Your task to perform on an android device: Search for seafood restaurants on Google Maps Image 0: 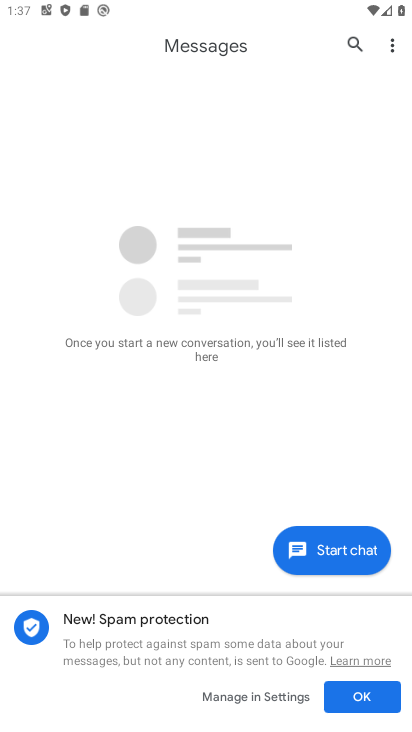
Step 0: press home button
Your task to perform on an android device: Search for seafood restaurants on Google Maps Image 1: 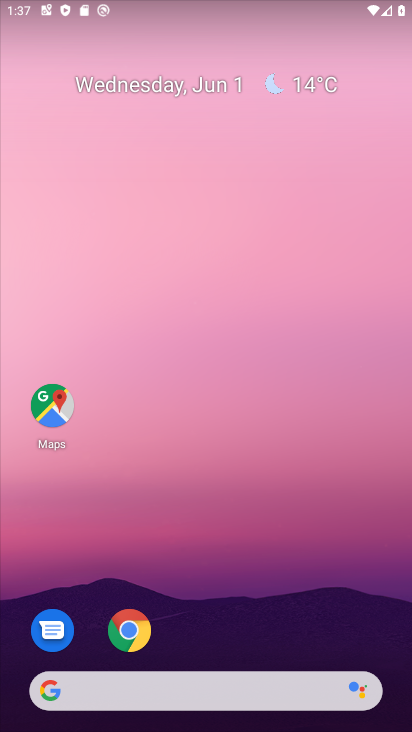
Step 1: click (52, 399)
Your task to perform on an android device: Search for seafood restaurants on Google Maps Image 2: 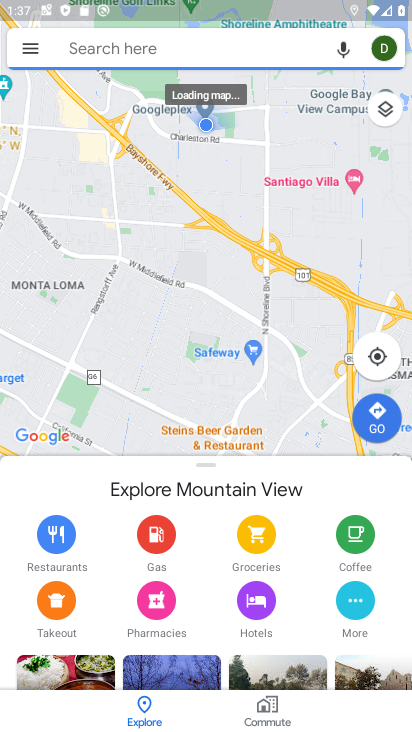
Step 2: click (126, 40)
Your task to perform on an android device: Search for seafood restaurants on Google Maps Image 3: 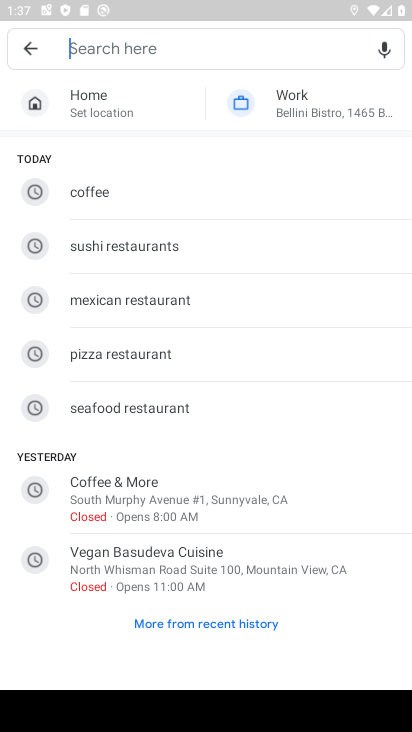
Step 3: click (126, 401)
Your task to perform on an android device: Search for seafood restaurants on Google Maps Image 4: 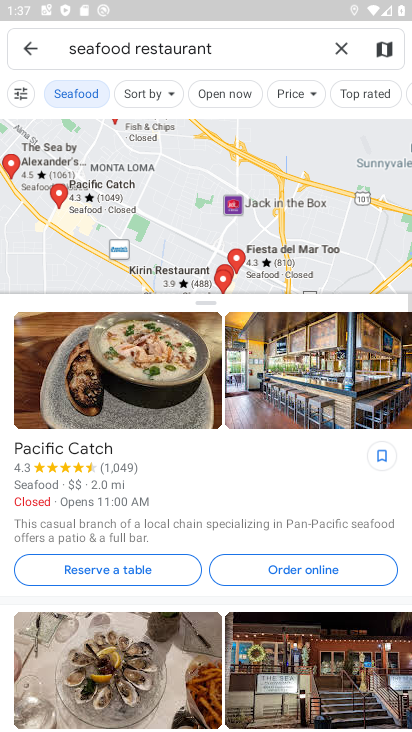
Step 4: task complete